Your task to perform on an android device: Open network settings Image 0: 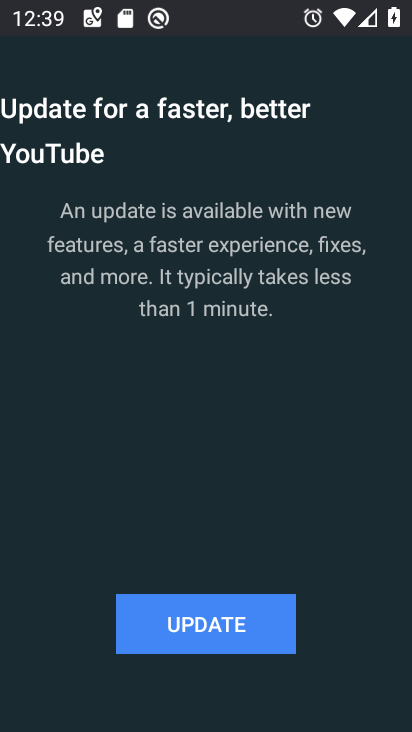
Step 0: press back button
Your task to perform on an android device: Open network settings Image 1: 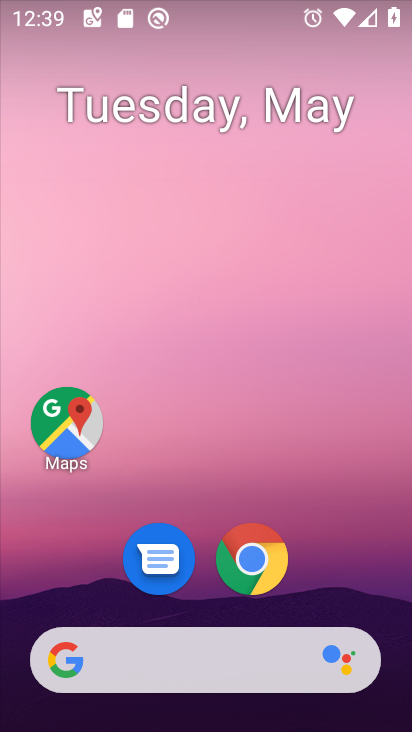
Step 1: drag from (380, 583) to (312, 123)
Your task to perform on an android device: Open network settings Image 2: 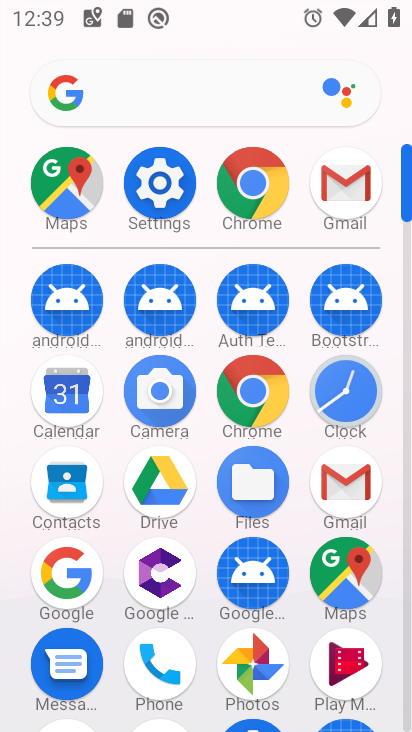
Step 2: click (183, 185)
Your task to perform on an android device: Open network settings Image 3: 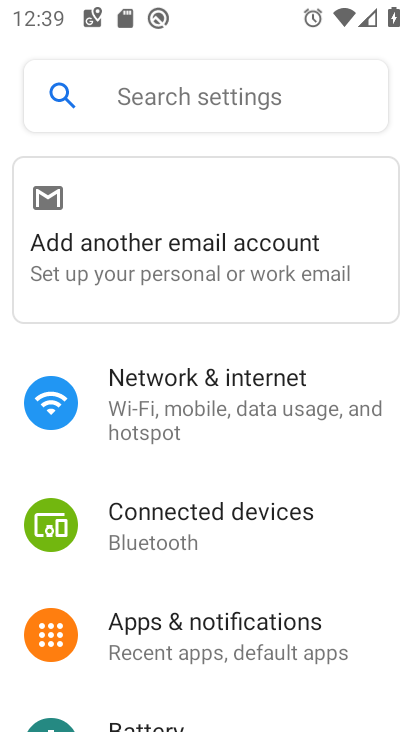
Step 3: click (237, 378)
Your task to perform on an android device: Open network settings Image 4: 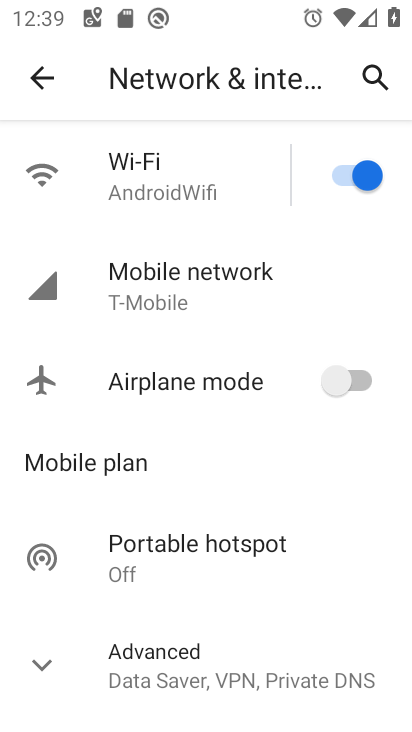
Step 4: task complete